Your task to perform on an android device: allow cookies in the chrome app Image 0: 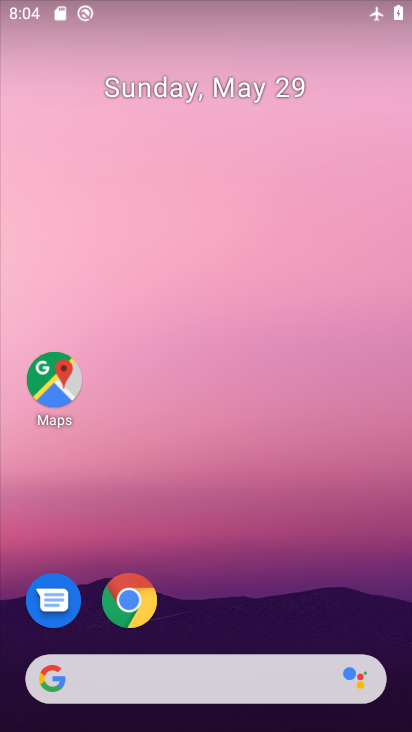
Step 0: click (128, 590)
Your task to perform on an android device: allow cookies in the chrome app Image 1: 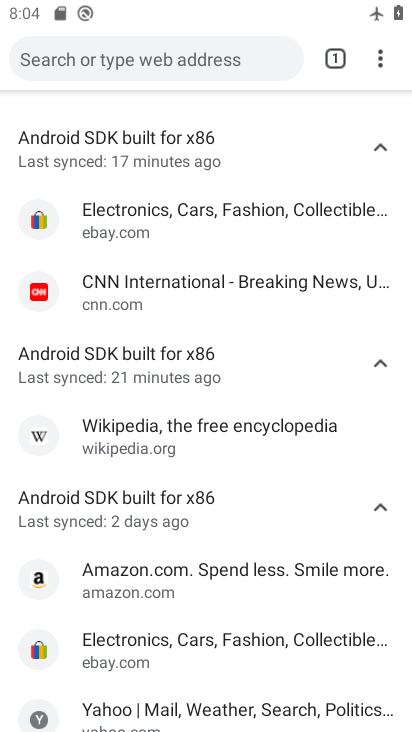
Step 1: click (381, 60)
Your task to perform on an android device: allow cookies in the chrome app Image 2: 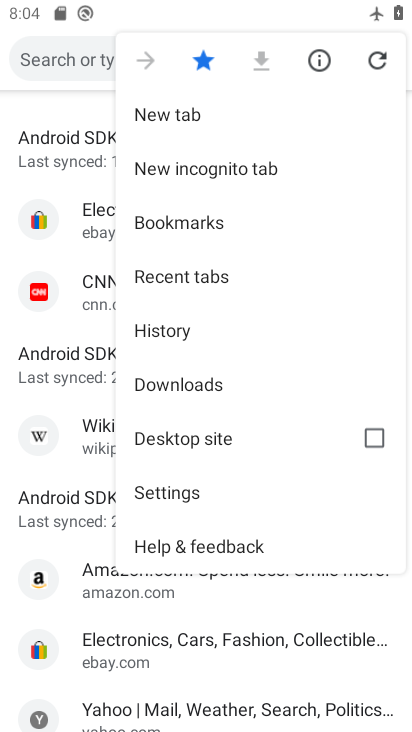
Step 2: click (167, 497)
Your task to perform on an android device: allow cookies in the chrome app Image 3: 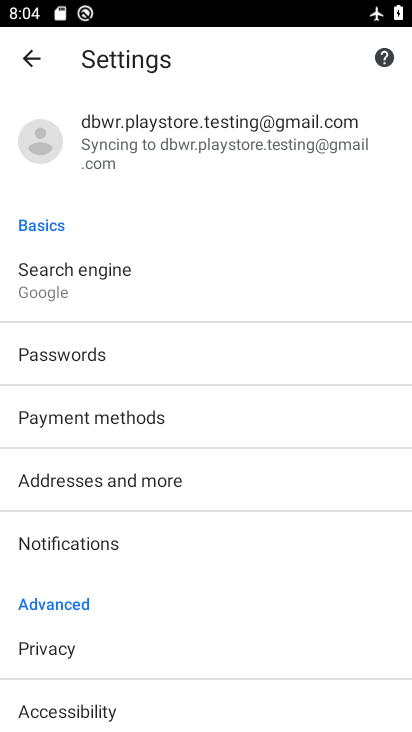
Step 3: drag from (130, 586) to (184, 262)
Your task to perform on an android device: allow cookies in the chrome app Image 4: 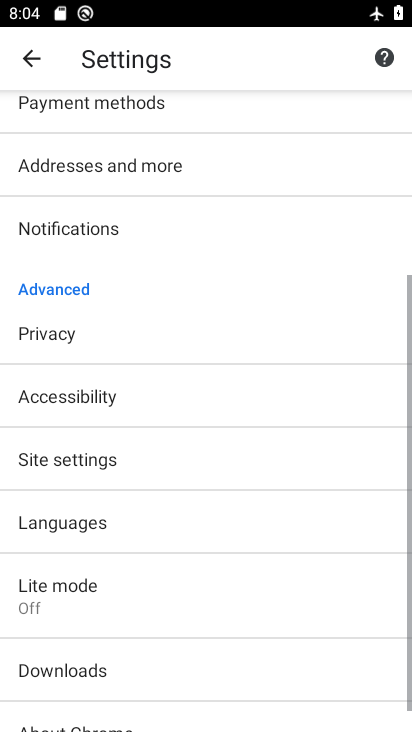
Step 4: click (113, 466)
Your task to perform on an android device: allow cookies in the chrome app Image 5: 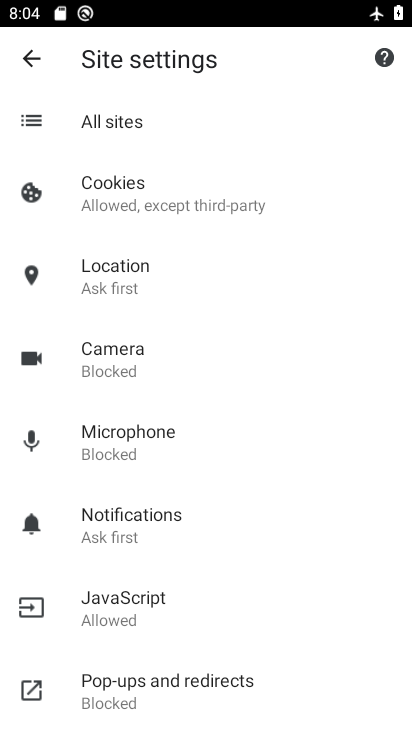
Step 5: click (158, 207)
Your task to perform on an android device: allow cookies in the chrome app Image 6: 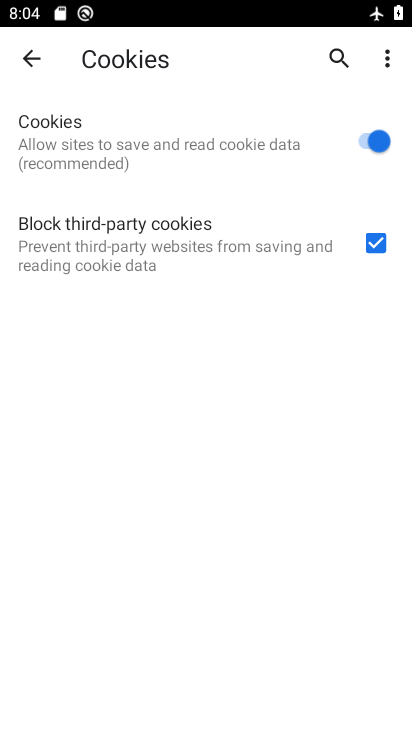
Step 6: task complete